Your task to perform on an android device: Open settings Image 0: 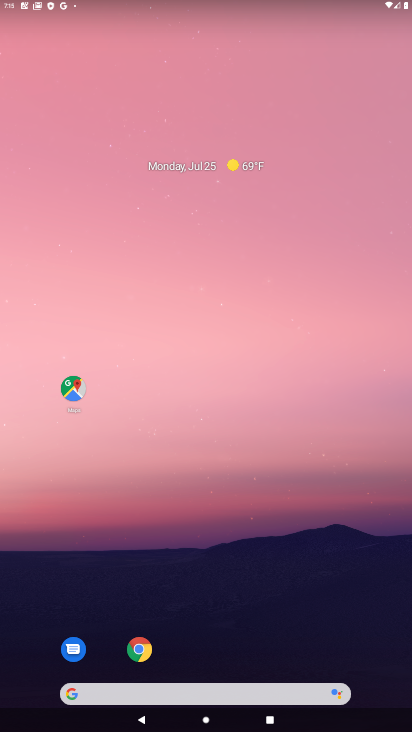
Step 0: drag from (226, 618) to (356, 0)
Your task to perform on an android device: Open settings Image 1: 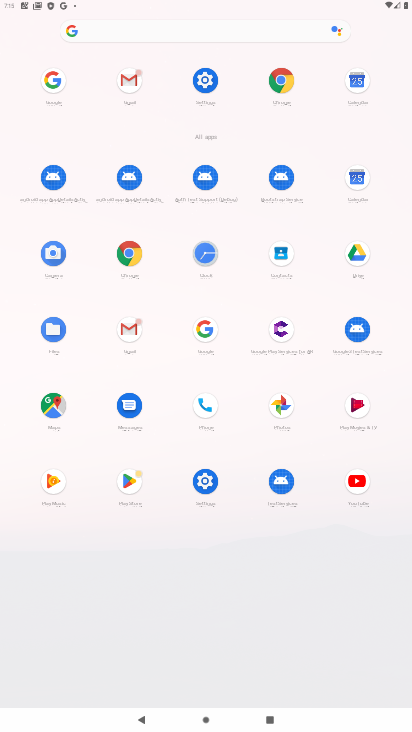
Step 1: click (214, 72)
Your task to perform on an android device: Open settings Image 2: 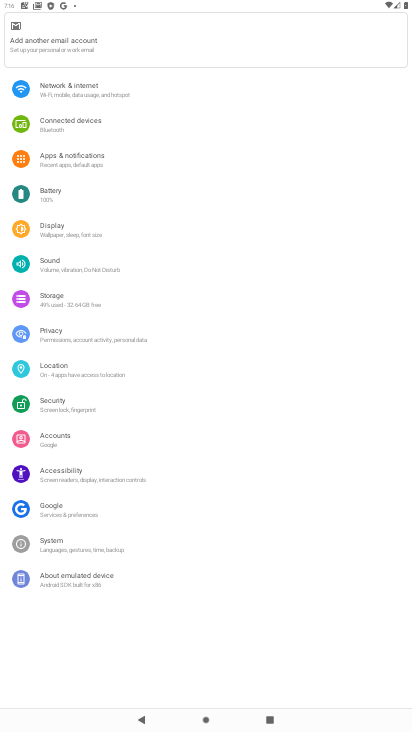
Step 2: task complete